Your task to perform on an android device: check the backup settings in the google photos Image 0: 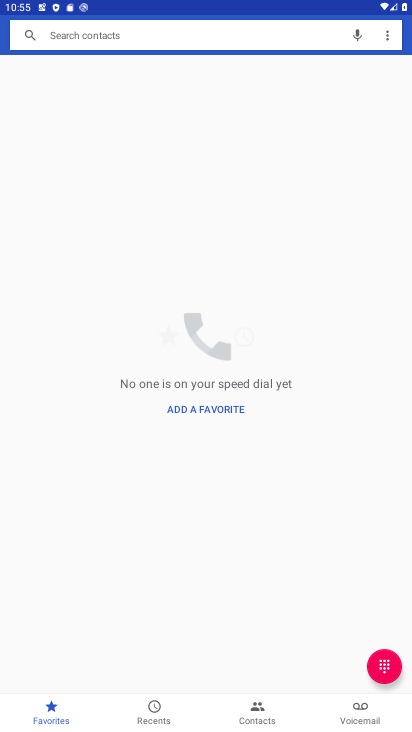
Step 0: press back button
Your task to perform on an android device: check the backup settings in the google photos Image 1: 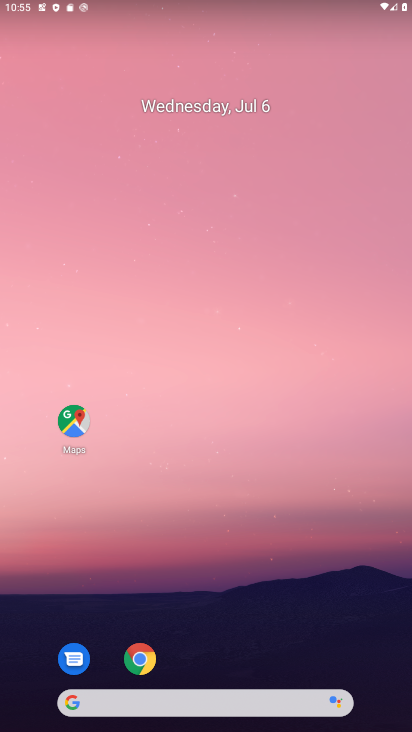
Step 1: drag from (218, 653) to (289, 17)
Your task to perform on an android device: check the backup settings in the google photos Image 2: 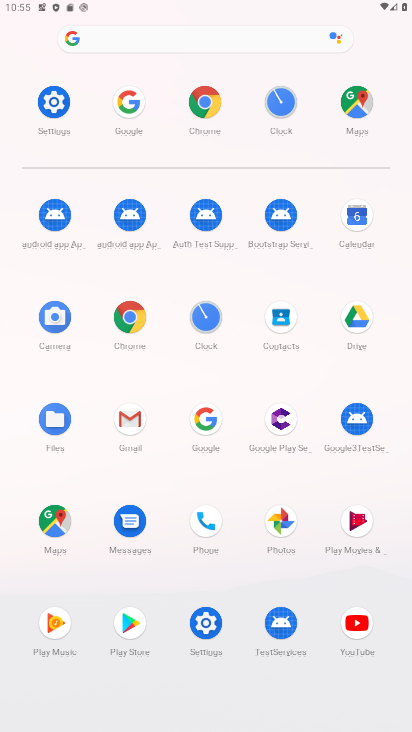
Step 2: click (274, 515)
Your task to perform on an android device: check the backup settings in the google photos Image 3: 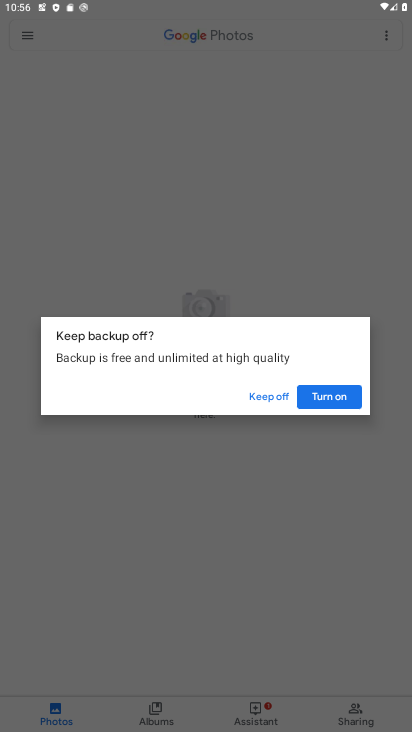
Step 3: click (277, 404)
Your task to perform on an android device: check the backup settings in the google photos Image 4: 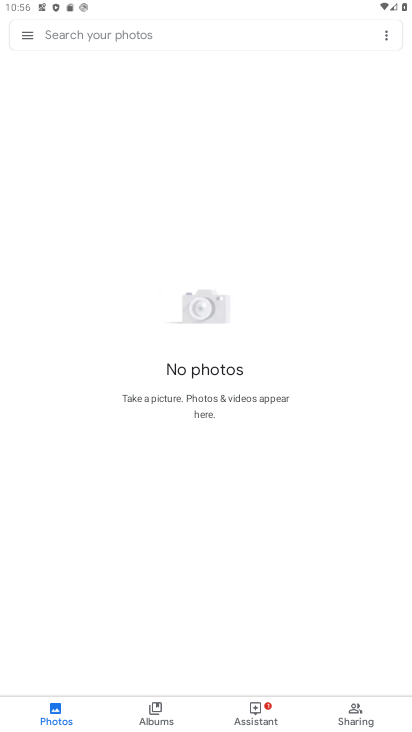
Step 4: click (26, 32)
Your task to perform on an android device: check the backup settings in the google photos Image 5: 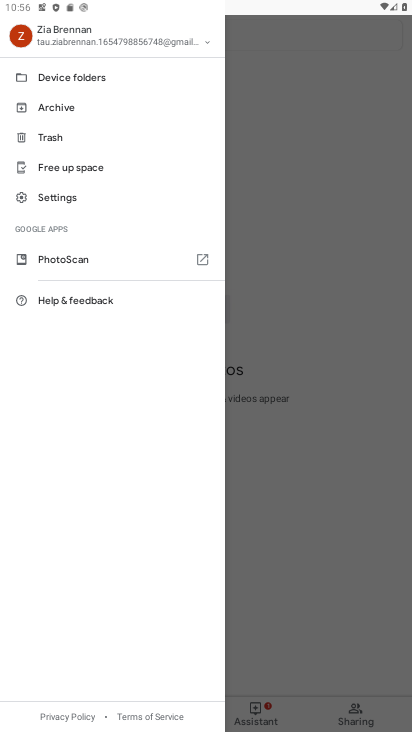
Step 5: click (77, 29)
Your task to perform on an android device: check the backup settings in the google photos Image 6: 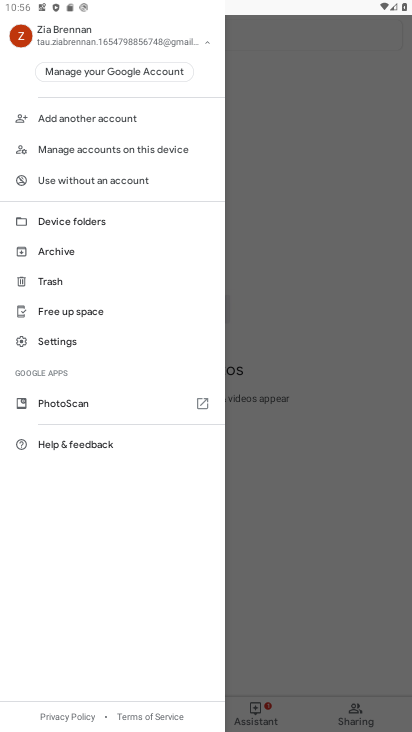
Step 6: click (72, 34)
Your task to perform on an android device: check the backup settings in the google photos Image 7: 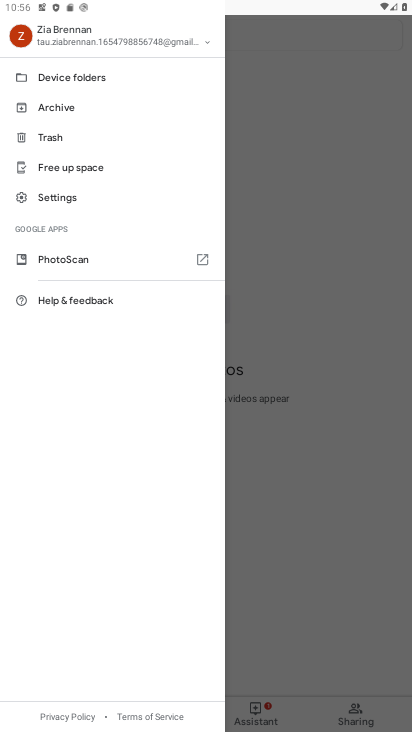
Step 7: click (72, 34)
Your task to perform on an android device: check the backup settings in the google photos Image 8: 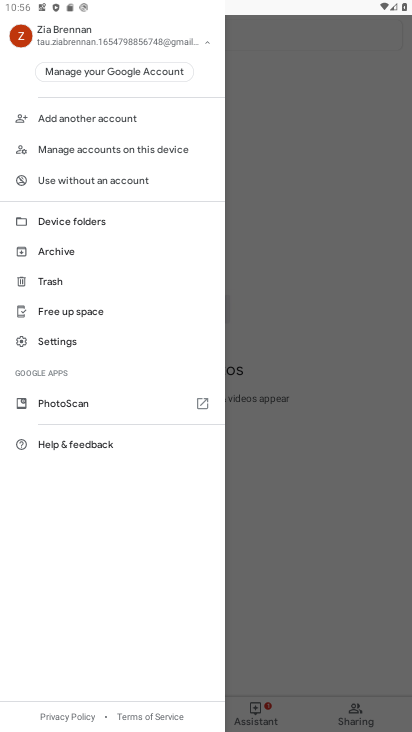
Step 8: click (66, 344)
Your task to perform on an android device: check the backup settings in the google photos Image 9: 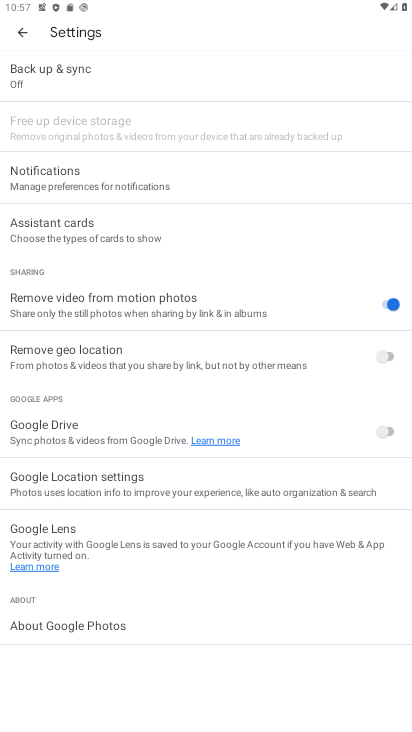
Step 9: click (149, 79)
Your task to perform on an android device: check the backup settings in the google photos Image 10: 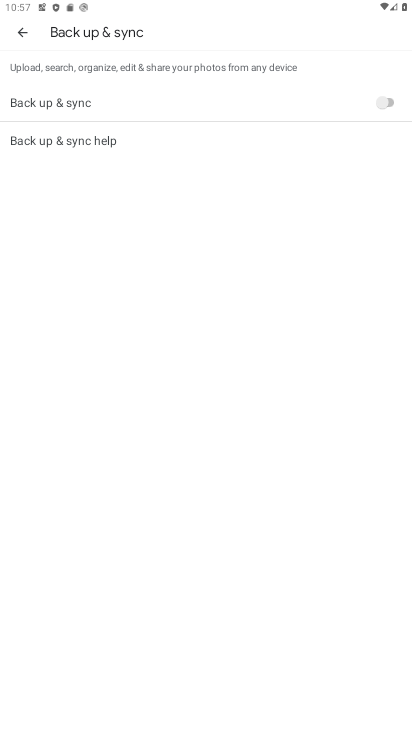
Step 10: task complete